Your task to perform on an android device: turn off location history Image 0: 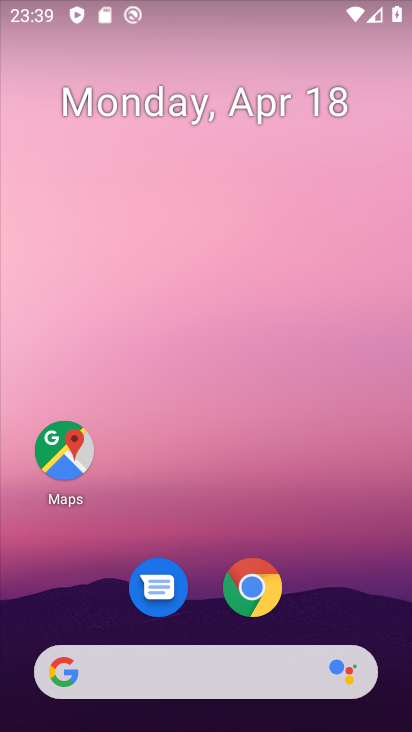
Step 0: drag from (386, 591) to (334, 77)
Your task to perform on an android device: turn off location history Image 1: 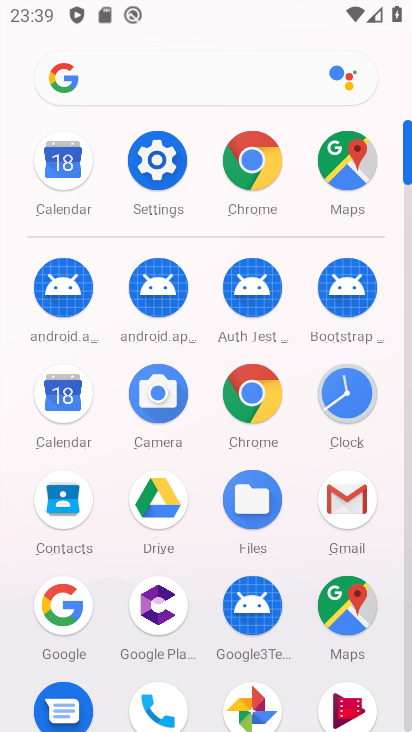
Step 1: click (159, 158)
Your task to perform on an android device: turn off location history Image 2: 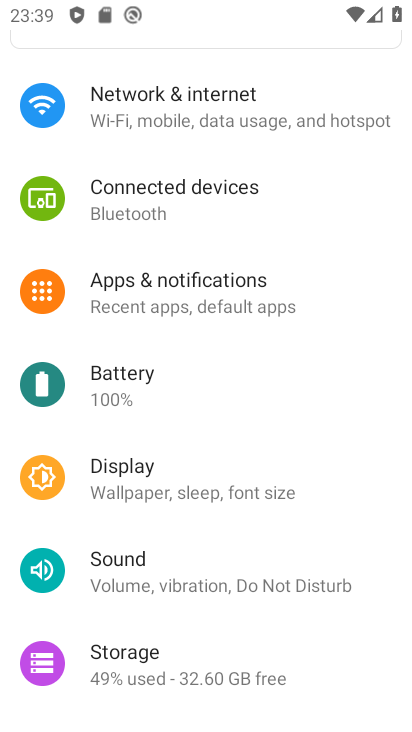
Step 2: drag from (336, 621) to (315, 204)
Your task to perform on an android device: turn off location history Image 3: 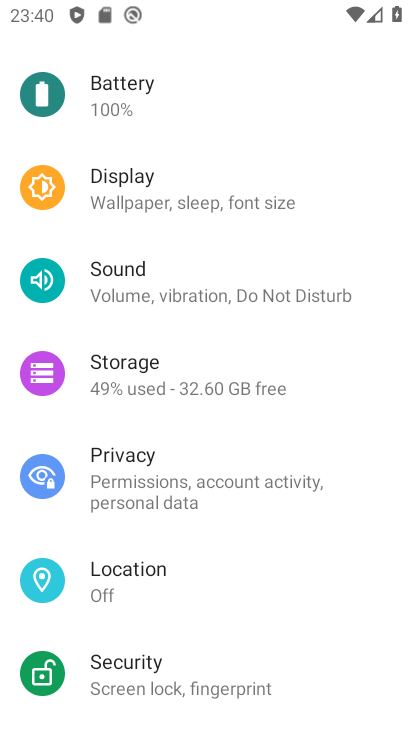
Step 3: drag from (292, 550) to (304, 229)
Your task to perform on an android device: turn off location history Image 4: 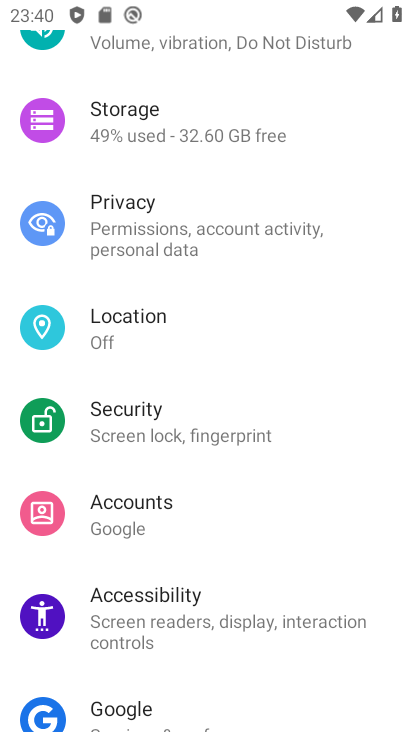
Step 4: click (213, 317)
Your task to perform on an android device: turn off location history Image 5: 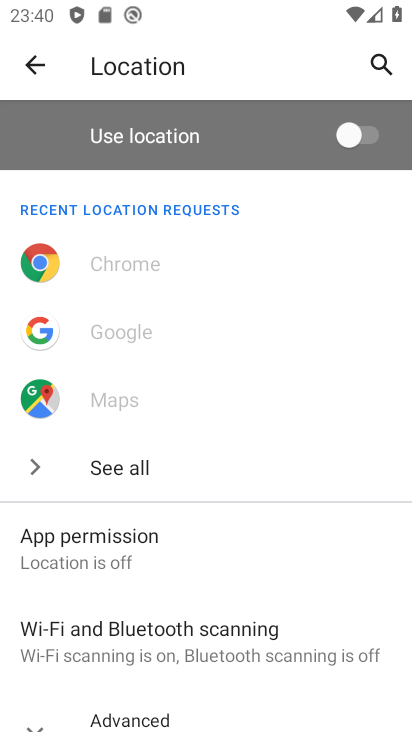
Step 5: task complete